Your task to perform on an android device: Go to eBay Image 0: 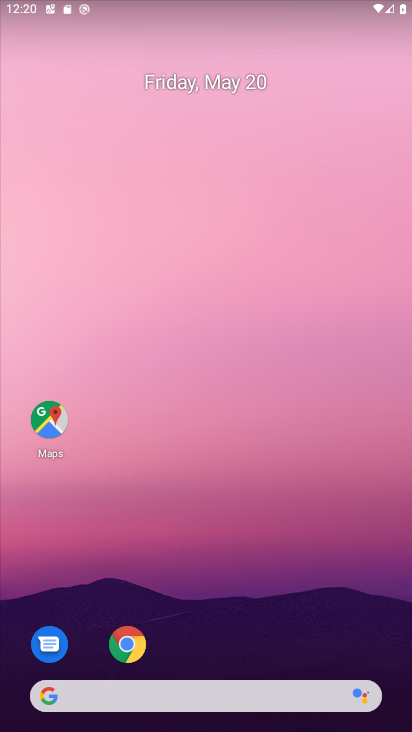
Step 0: drag from (142, 676) to (164, 271)
Your task to perform on an android device: Go to eBay Image 1: 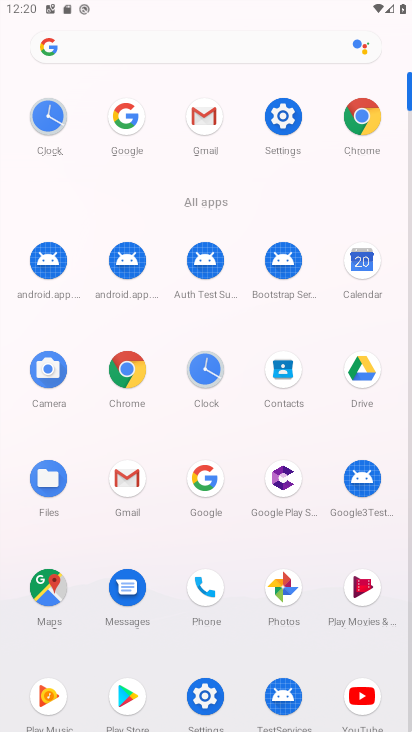
Step 1: click (209, 485)
Your task to perform on an android device: Go to eBay Image 2: 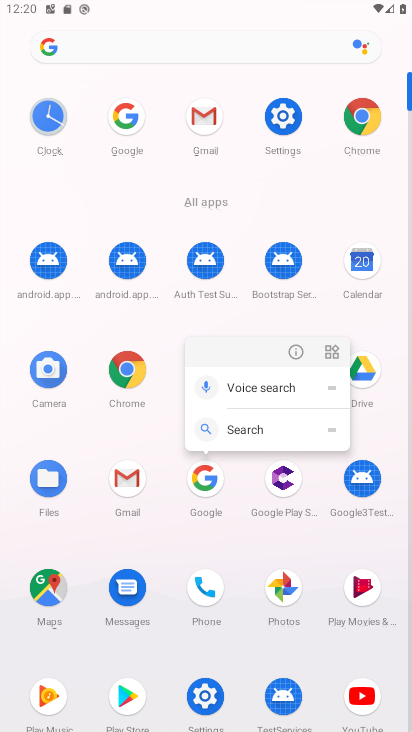
Step 2: click (206, 482)
Your task to perform on an android device: Go to eBay Image 3: 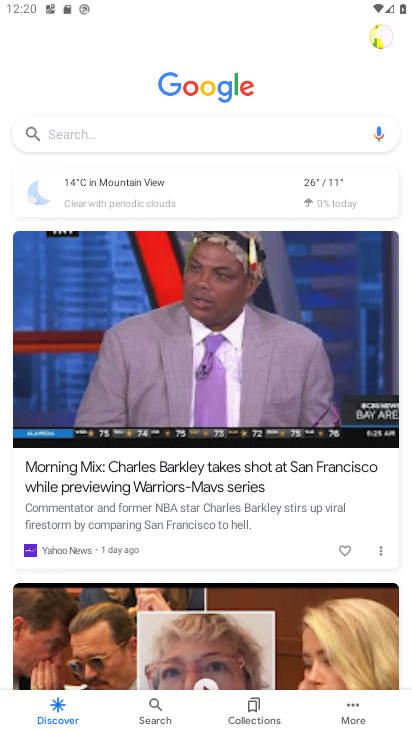
Step 3: drag from (138, 121) to (37, 121)
Your task to perform on an android device: Go to eBay Image 4: 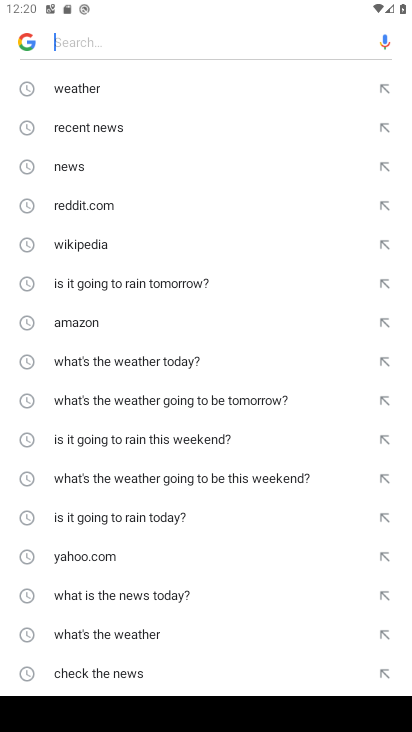
Step 4: drag from (143, 654) to (142, 320)
Your task to perform on an android device: Go to eBay Image 5: 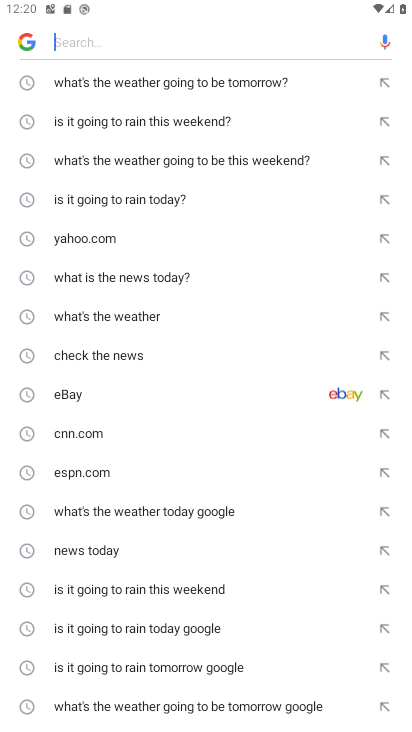
Step 5: click (91, 390)
Your task to perform on an android device: Go to eBay Image 6: 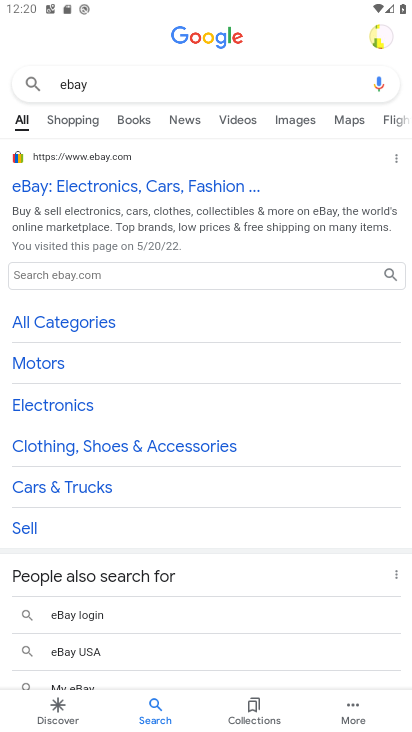
Step 6: drag from (194, 621) to (185, 329)
Your task to perform on an android device: Go to eBay Image 7: 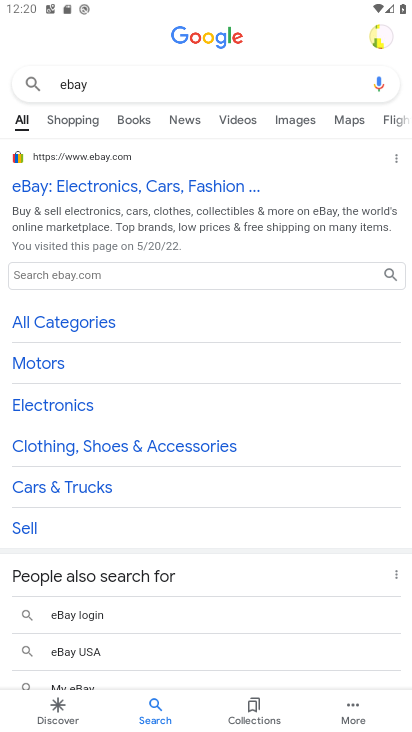
Step 7: click (135, 179)
Your task to perform on an android device: Go to eBay Image 8: 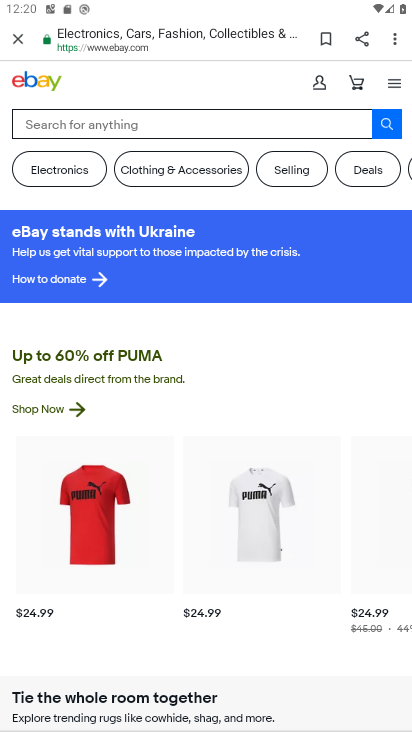
Step 8: task complete